Your task to perform on an android device: What is the recent news? Image 0: 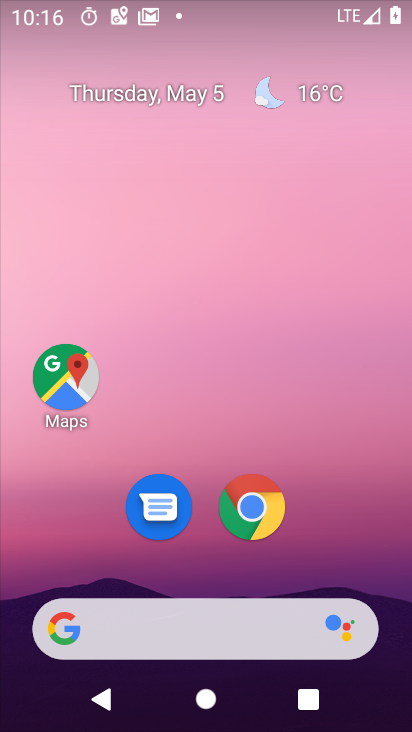
Step 0: click (246, 507)
Your task to perform on an android device: What is the recent news? Image 1: 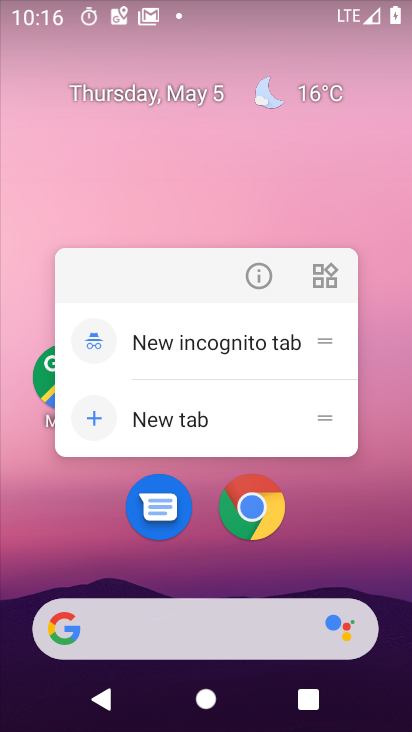
Step 1: click (265, 273)
Your task to perform on an android device: What is the recent news? Image 2: 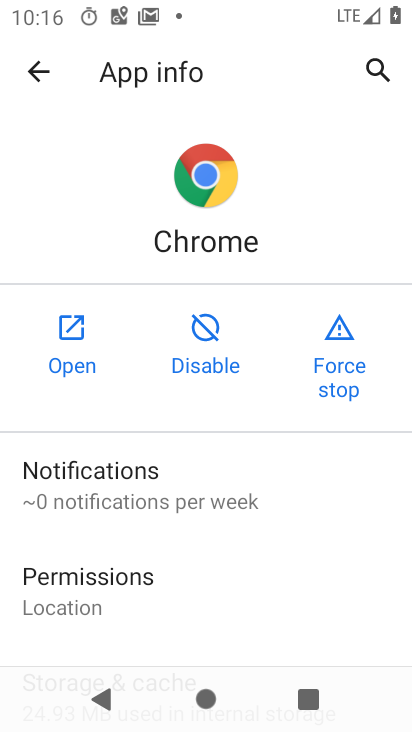
Step 2: click (73, 352)
Your task to perform on an android device: What is the recent news? Image 3: 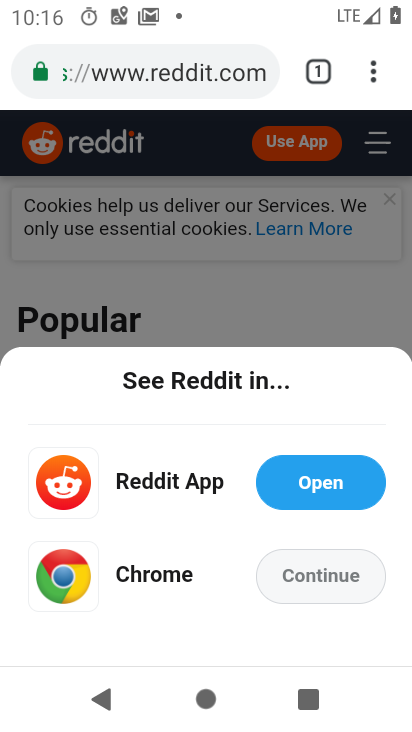
Step 3: click (182, 66)
Your task to perform on an android device: What is the recent news? Image 4: 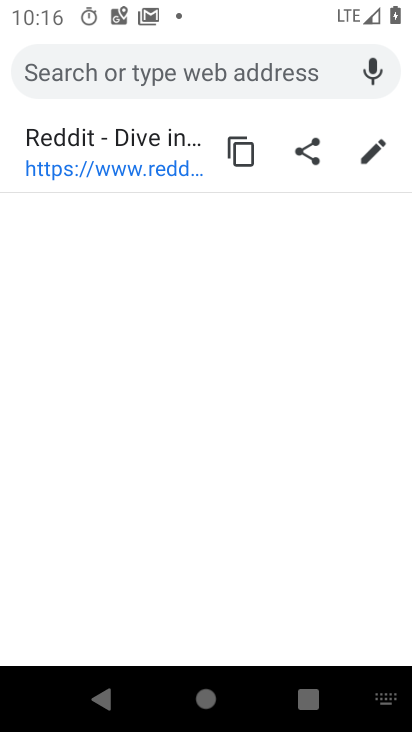
Step 4: type "recent news"
Your task to perform on an android device: What is the recent news? Image 5: 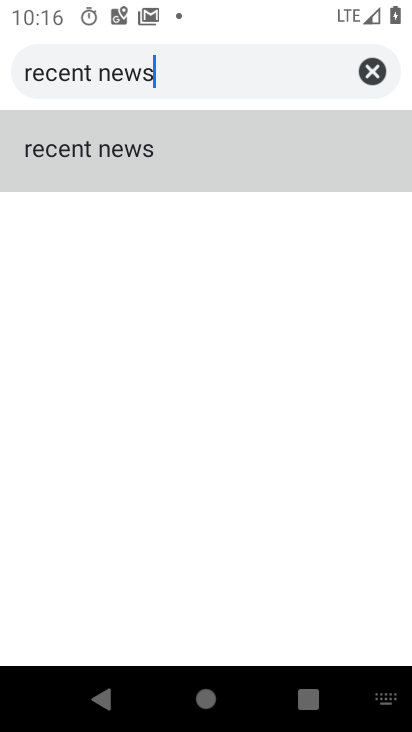
Step 5: click (96, 162)
Your task to perform on an android device: What is the recent news? Image 6: 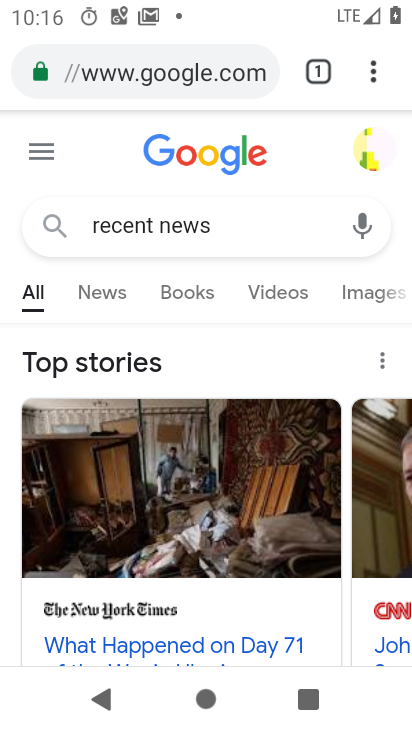
Step 6: task complete